Your task to perform on an android device: Show me recent news Image 0: 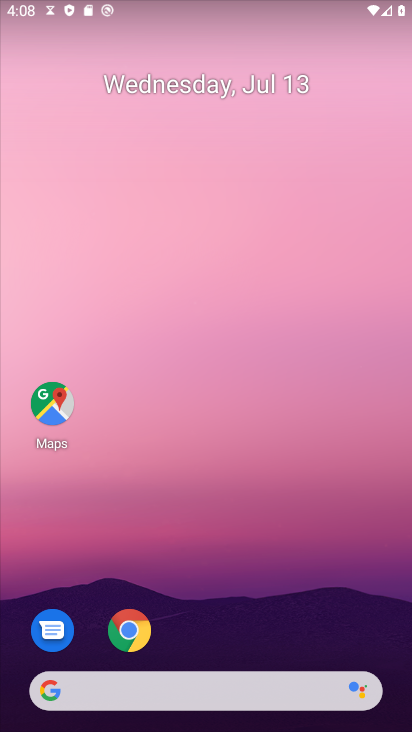
Step 0: click (43, 692)
Your task to perform on an android device: Show me recent news Image 1: 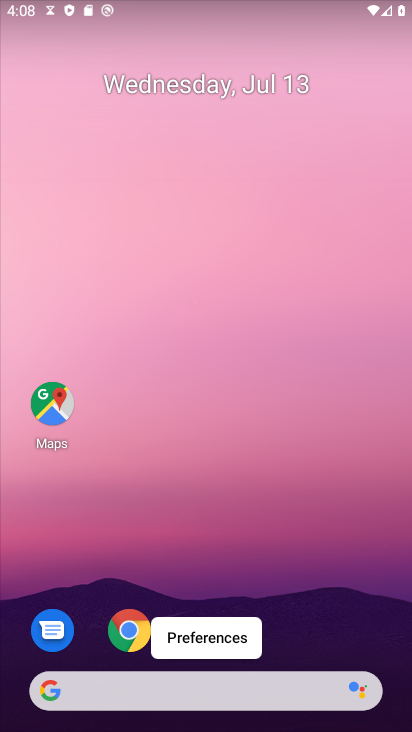
Step 1: click (43, 690)
Your task to perform on an android device: Show me recent news Image 2: 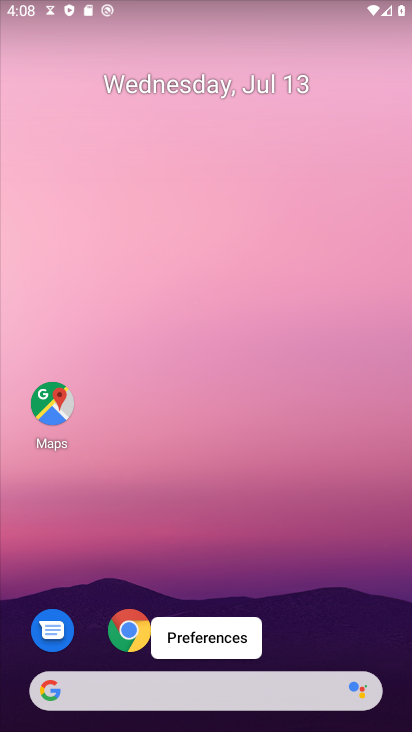
Step 2: click (43, 689)
Your task to perform on an android device: Show me recent news Image 3: 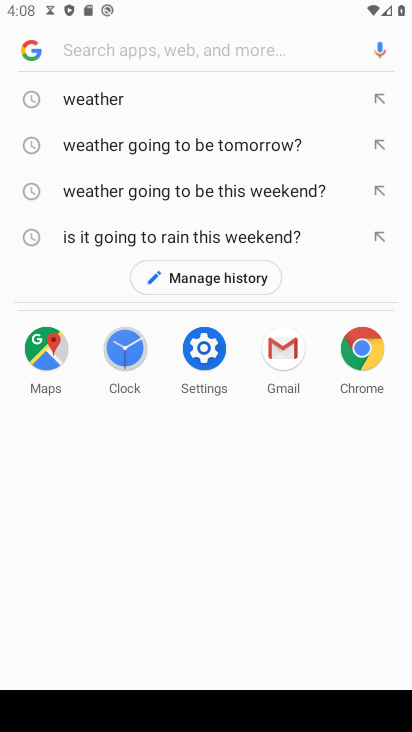
Step 3: drag from (209, 719) to (397, 704)
Your task to perform on an android device: Show me recent news Image 4: 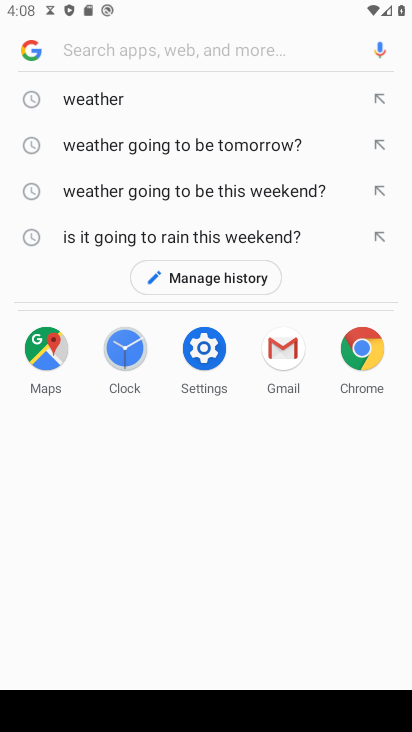
Step 4: type "recent news"
Your task to perform on an android device: Show me recent news Image 5: 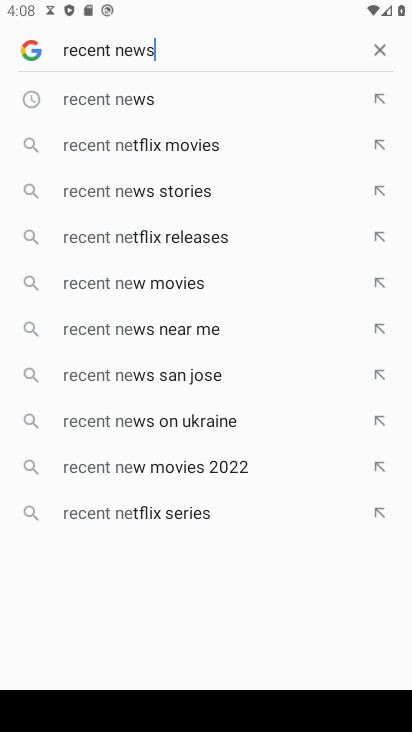
Step 5: press enter
Your task to perform on an android device: Show me recent news Image 6: 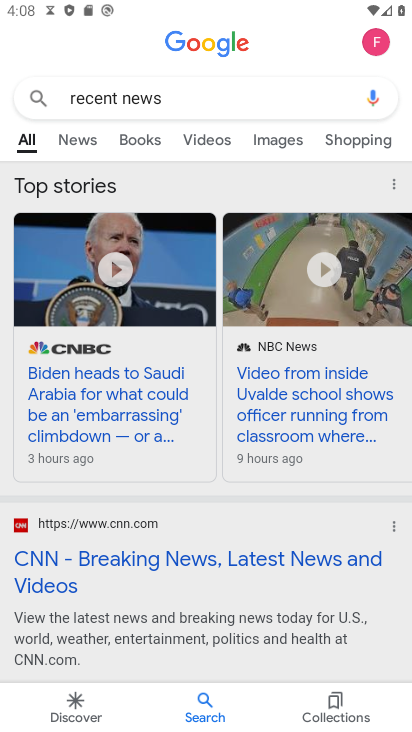
Step 6: task complete